Your task to perform on an android device: set default search engine in the chrome app Image 0: 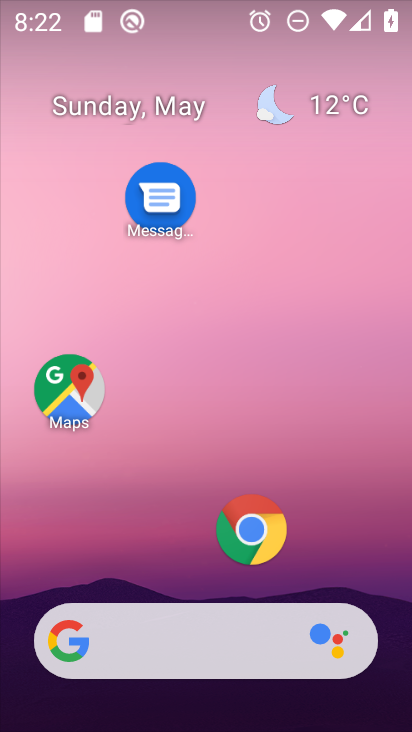
Step 0: press home button
Your task to perform on an android device: set default search engine in the chrome app Image 1: 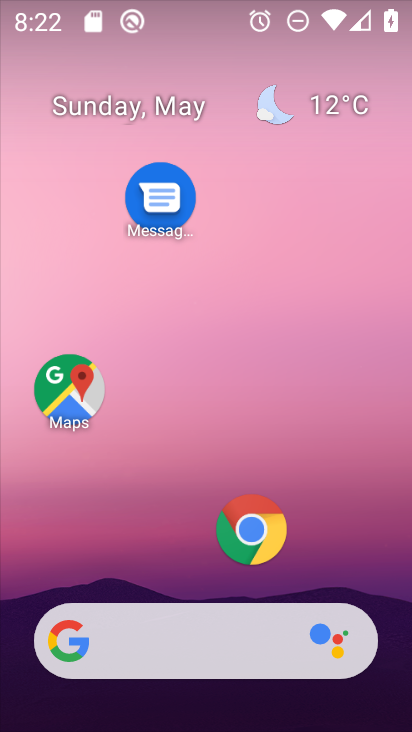
Step 1: click (254, 524)
Your task to perform on an android device: set default search engine in the chrome app Image 2: 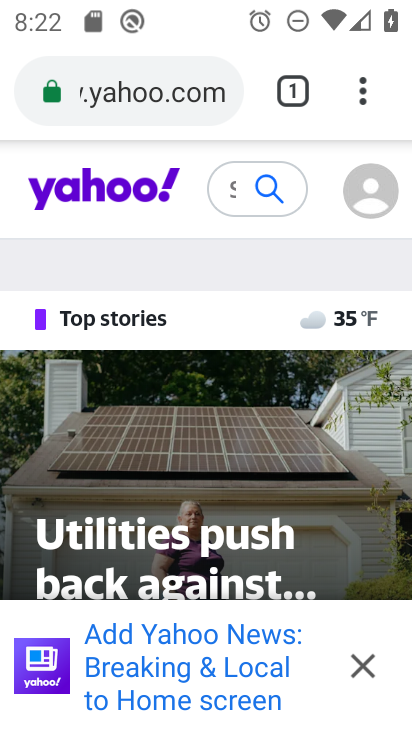
Step 2: click (357, 86)
Your task to perform on an android device: set default search engine in the chrome app Image 3: 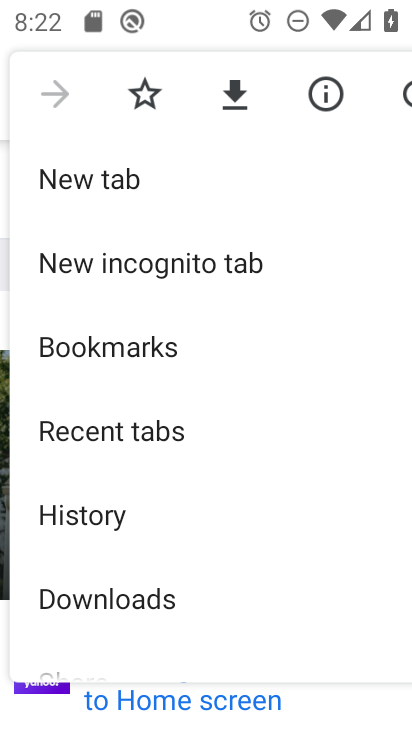
Step 3: drag from (205, 606) to (305, 32)
Your task to perform on an android device: set default search engine in the chrome app Image 4: 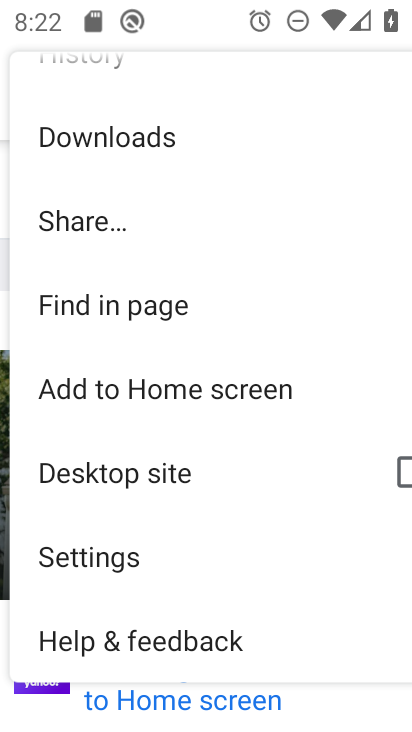
Step 4: click (158, 564)
Your task to perform on an android device: set default search engine in the chrome app Image 5: 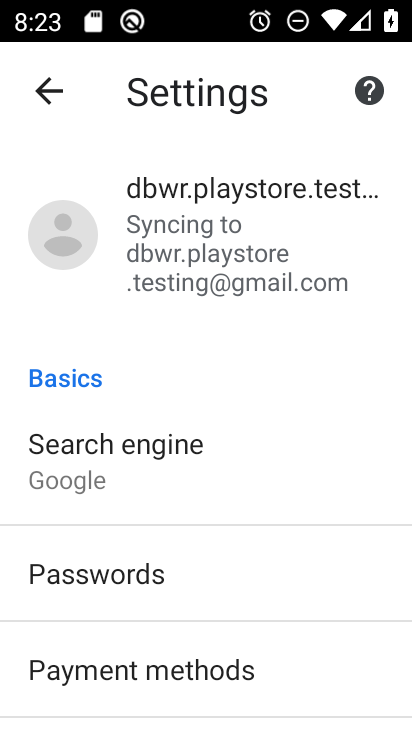
Step 5: click (147, 475)
Your task to perform on an android device: set default search engine in the chrome app Image 6: 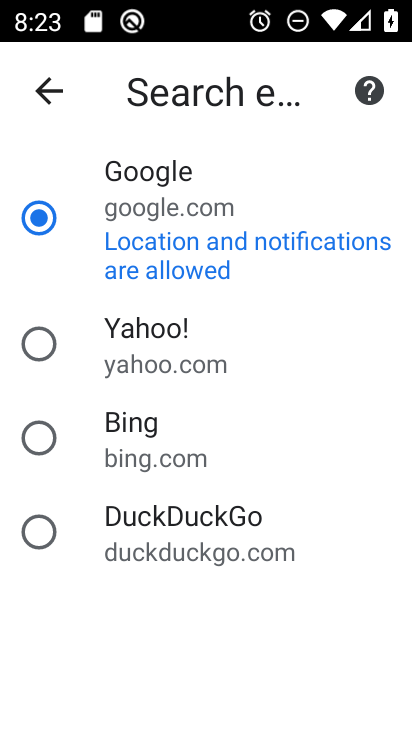
Step 6: click (37, 340)
Your task to perform on an android device: set default search engine in the chrome app Image 7: 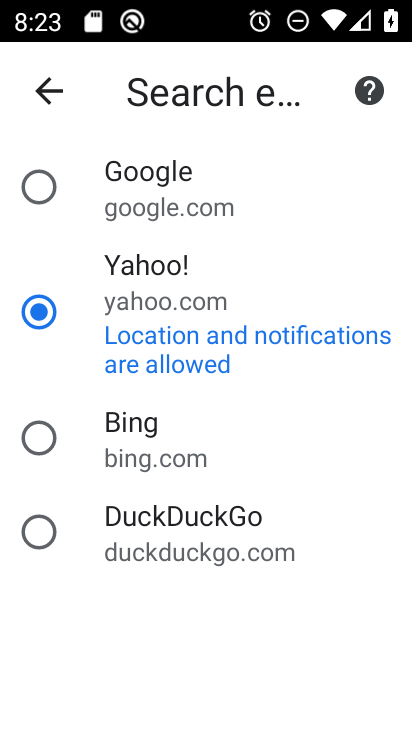
Step 7: task complete